Your task to perform on an android device: read, delete, or share a saved page in the chrome app Image 0: 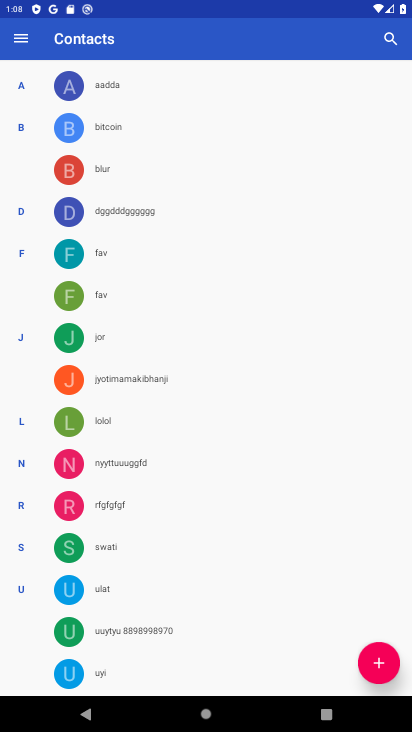
Step 0: press home button
Your task to perform on an android device: read, delete, or share a saved page in the chrome app Image 1: 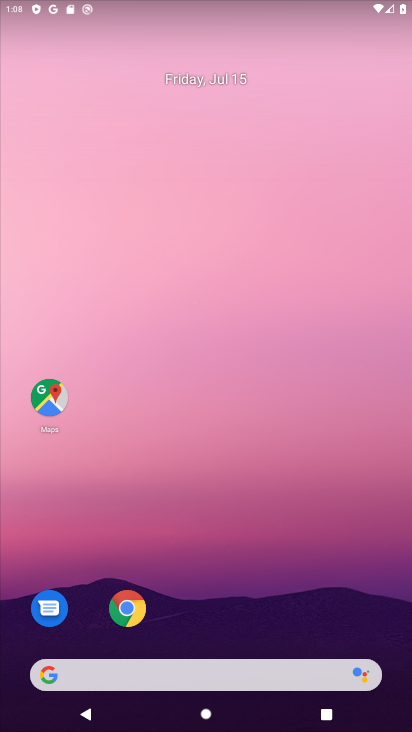
Step 1: click (128, 606)
Your task to perform on an android device: read, delete, or share a saved page in the chrome app Image 2: 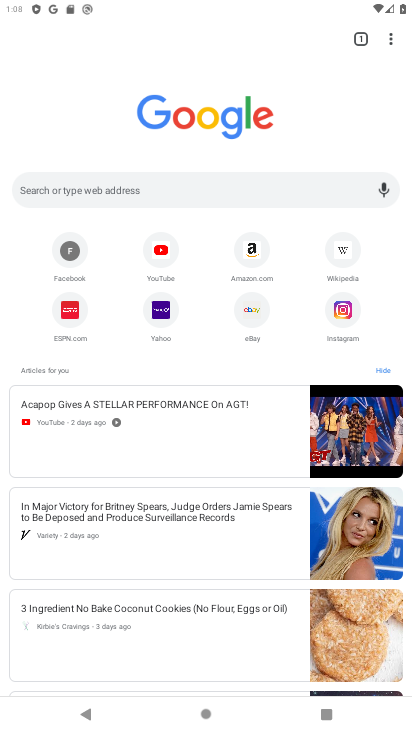
Step 2: click (389, 35)
Your task to perform on an android device: read, delete, or share a saved page in the chrome app Image 3: 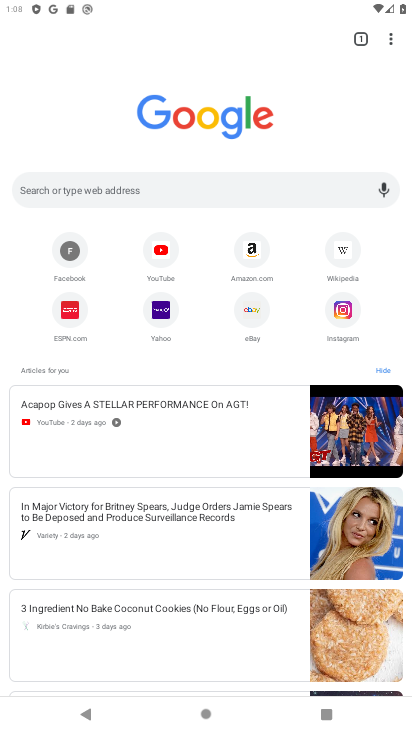
Step 3: click (391, 42)
Your task to perform on an android device: read, delete, or share a saved page in the chrome app Image 4: 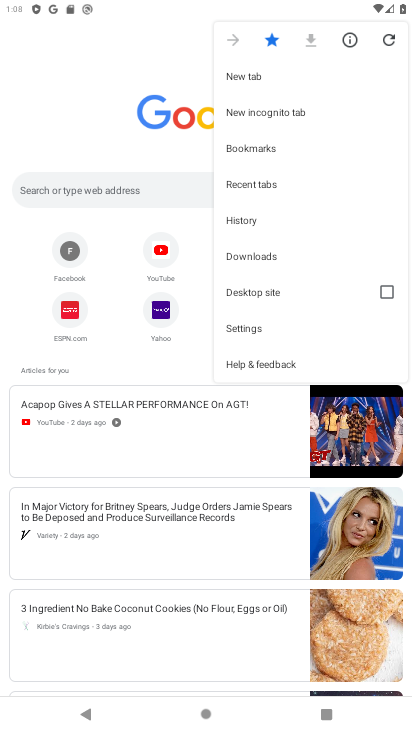
Step 4: click (261, 260)
Your task to perform on an android device: read, delete, or share a saved page in the chrome app Image 5: 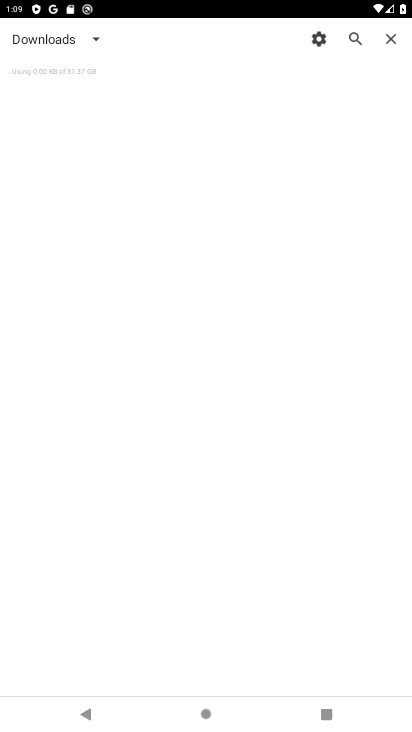
Step 5: task complete